Your task to perform on an android device: turn on priority inbox in the gmail app Image 0: 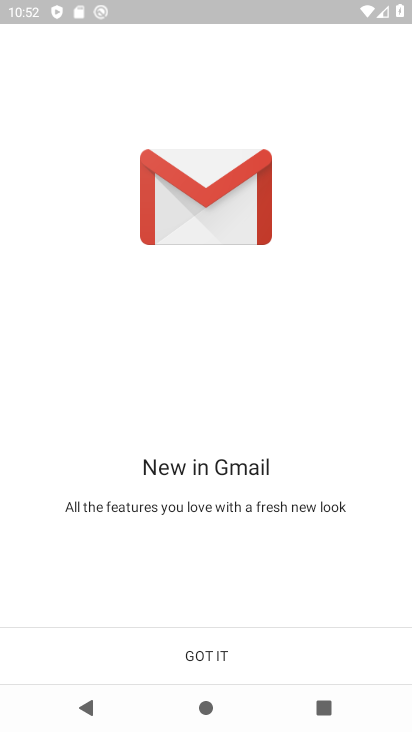
Step 0: press home button
Your task to perform on an android device: turn on priority inbox in the gmail app Image 1: 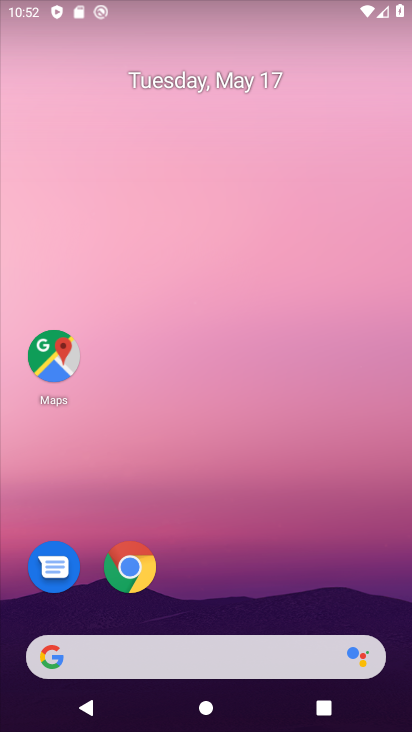
Step 1: drag from (393, 601) to (369, 216)
Your task to perform on an android device: turn on priority inbox in the gmail app Image 2: 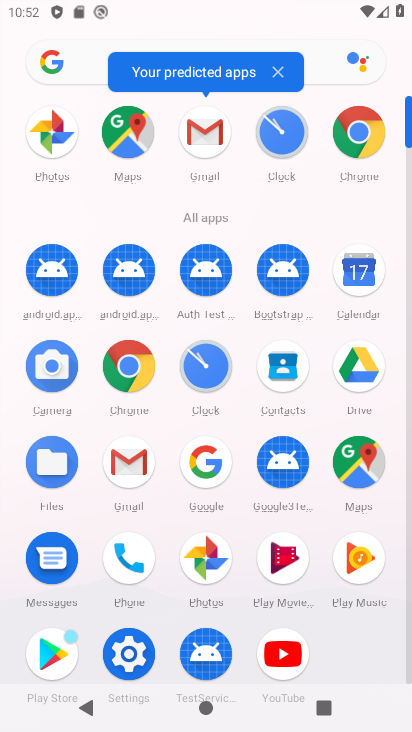
Step 2: click (130, 471)
Your task to perform on an android device: turn on priority inbox in the gmail app Image 3: 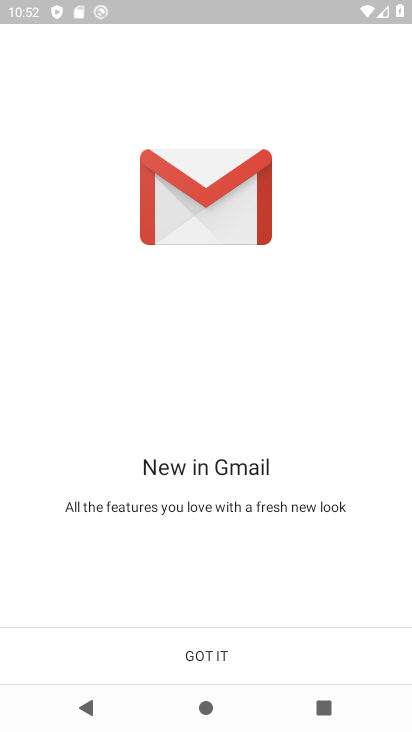
Step 3: click (222, 655)
Your task to perform on an android device: turn on priority inbox in the gmail app Image 4: 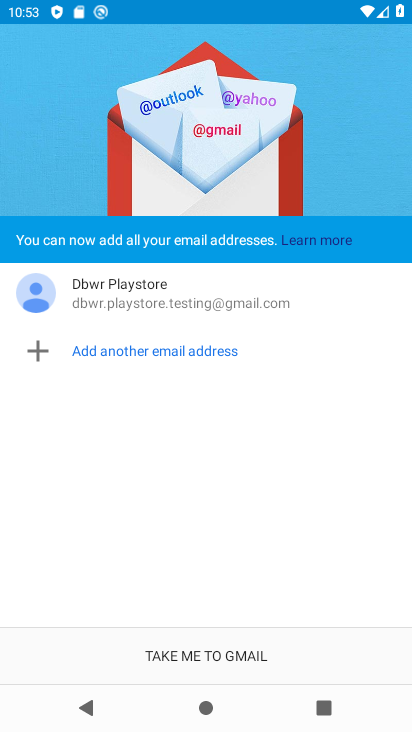
Step 4: click (225, 662)
Your task to perform on an android device: turn on priority inbox in the gmail app Image 5: 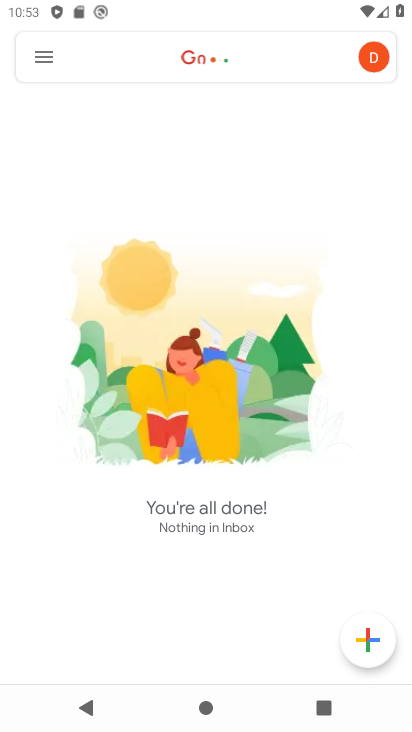
Step 5: click (45, 53)
Your task to perform on an android device: turn on priority inbox in the gmail app Image 6: 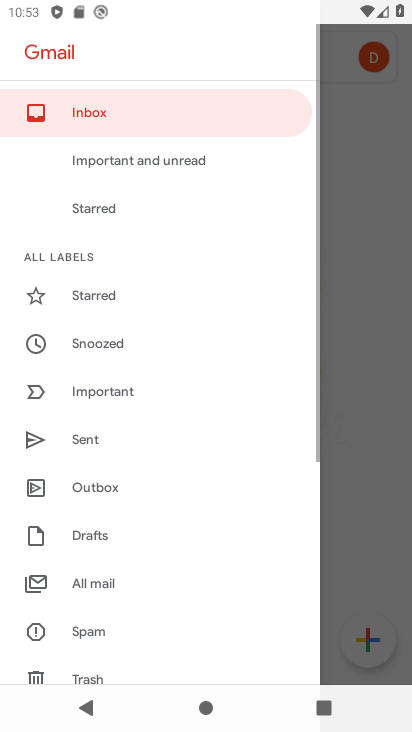
Step 6: drag from (179, 594) to (199, 303)
Your task to perform on an android device: turn on priority inbox in the gmail app Image 7: 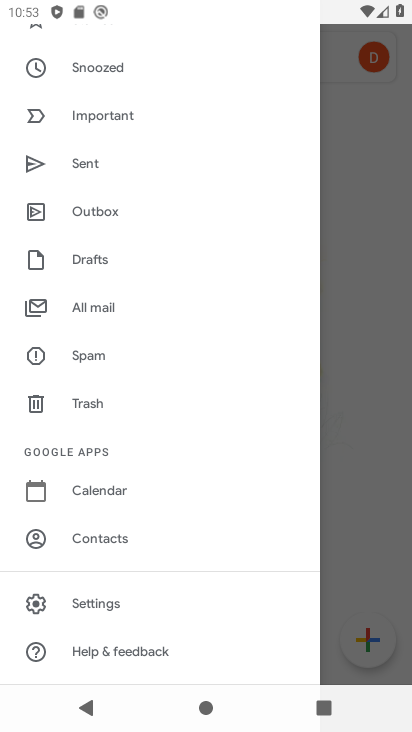
Step 7: click (191, 605)
Your task to perform on an android device: turn on priority inbox in the gmail app Image 8: 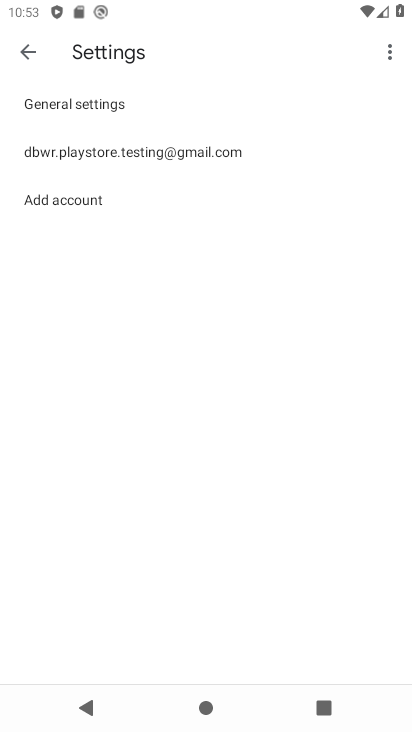
Step 8: click (162, 161)
Your task to perform on an android device: turn on priority inbox in the gmail app Image 9: 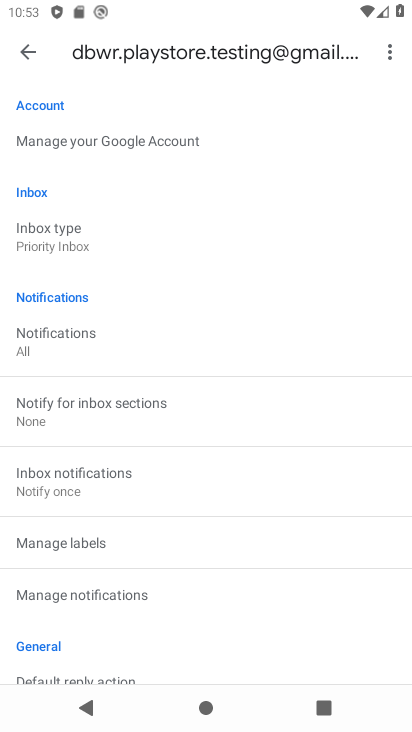
Step 9: click (102, 244)
Your task to perform on an android device: turn on priority inbox in the gmail app Image 10: 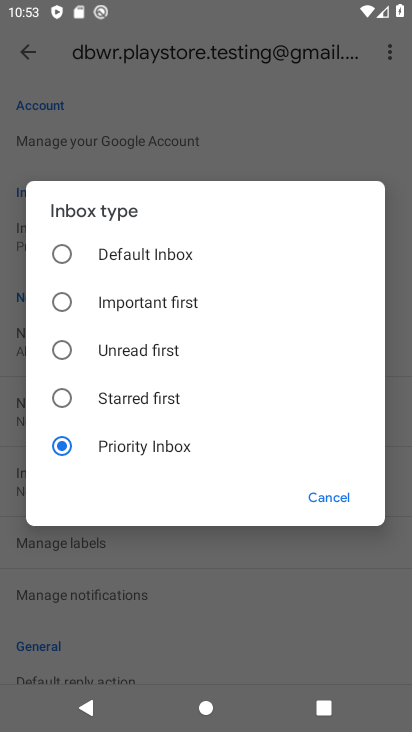
Step 10: task complete